Your task to perform on an android device: turn on sleep mode Image 0: 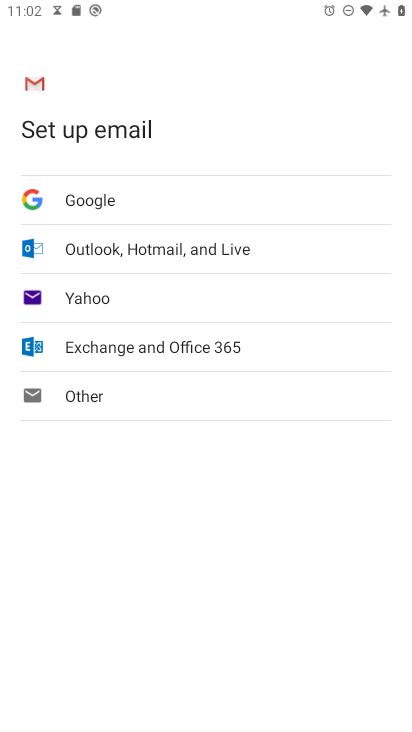
Step 0: press home button
Your task to perform on an android device: turn on sleep mode Image 1: 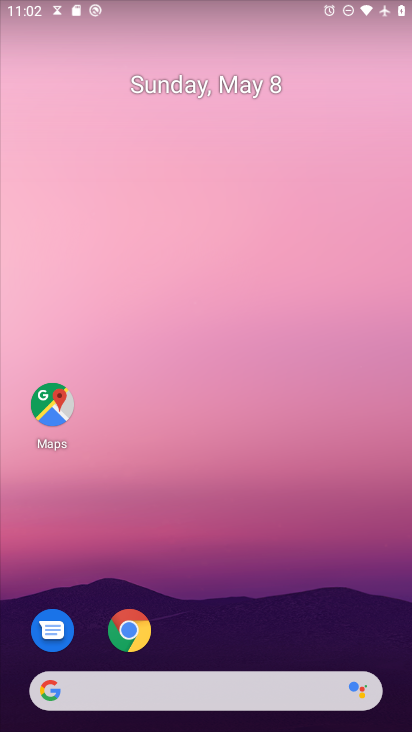
Step 1: drag from (233, 588) to (294, 155)
Your task to perform on an android device: turn on sleep mode Image 2: 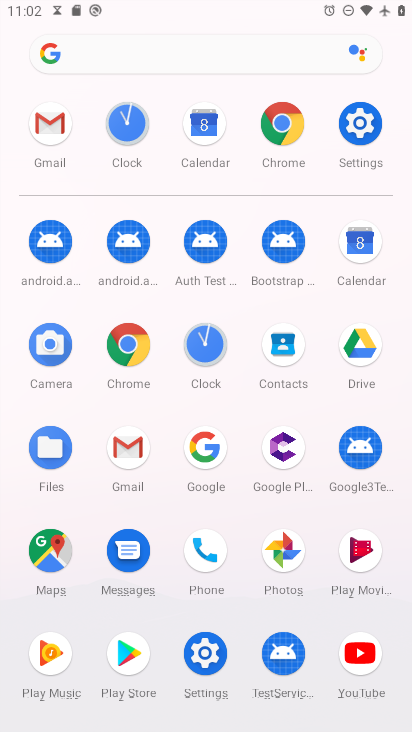
Step 2: click (363, 134)
Your task to perform on an android device: turn on sleep mode Image 3: 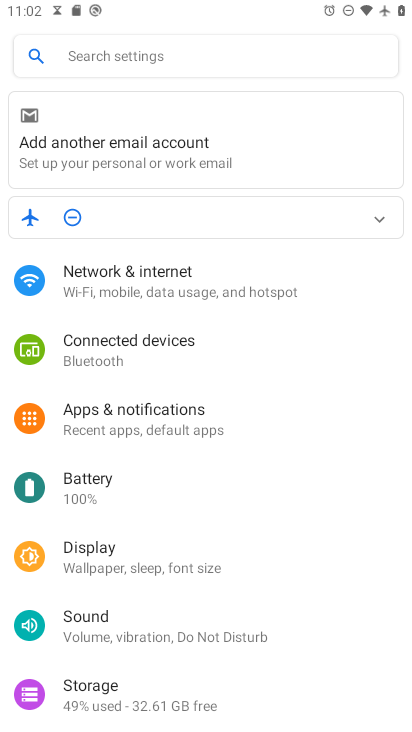
Step 3: click (168, 555)
Your task to perform on an android device: turn on sleep mode Image 4: 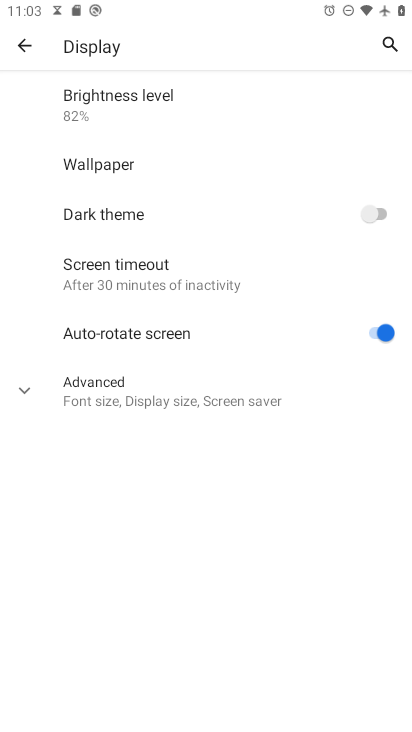
Step 4: task complete